Your task to perform on an android device: turn on airplane mode Image 0: 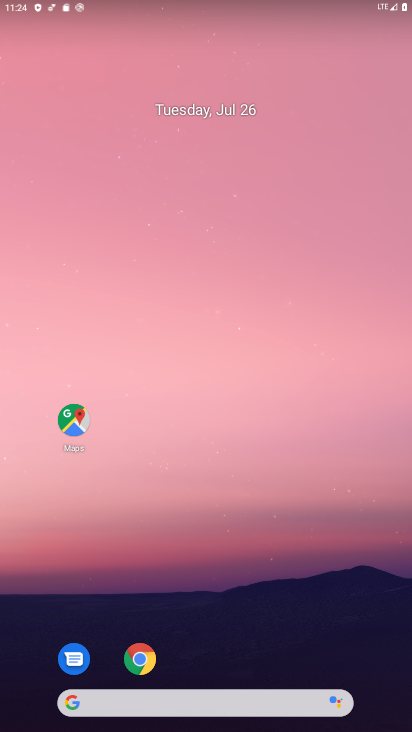
Step 0: drag from (250, 24) to (251, 398)
Your task to perform on an android device: turn on airplane mode Image 1: 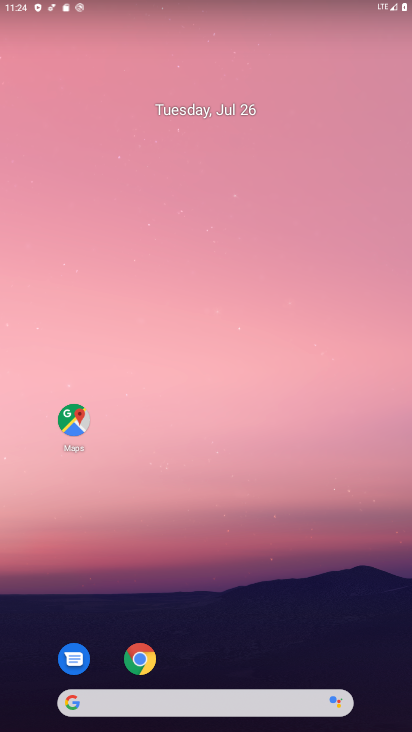
Step 1: drag from (305, 0) to (227, 532)
Your task to perform on an android device: turn on airplane mode Image 2: 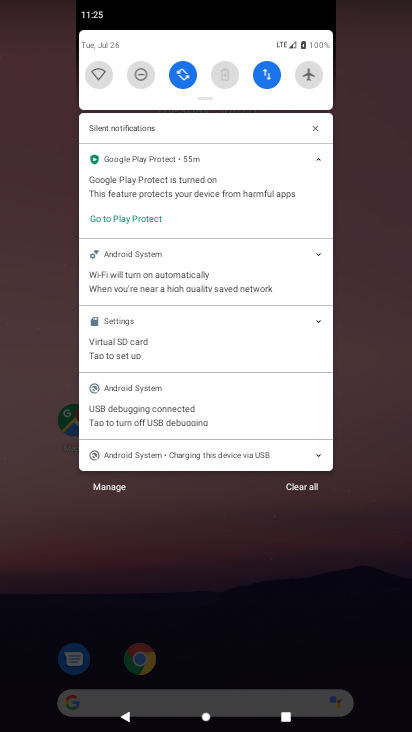
Step 2: click (304, 67)
Your task to perform on an android device: turn on airplane mode Image 3: 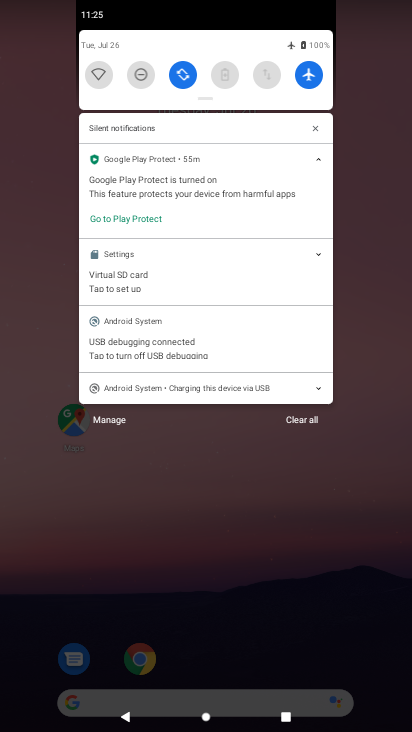
Step 3: task complete